Your task to perform on an android device: Is it going to rain today? Image 0: 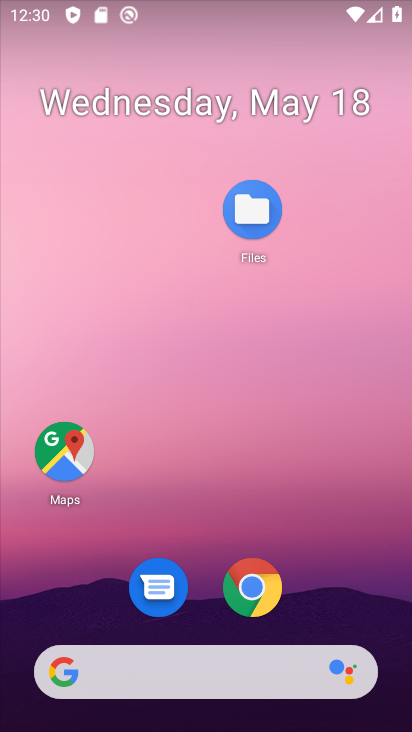
Step 0: drag from (373, 591) to (364, 82)
Your task to perform on an android device: Is it going to rain today? Image 1: 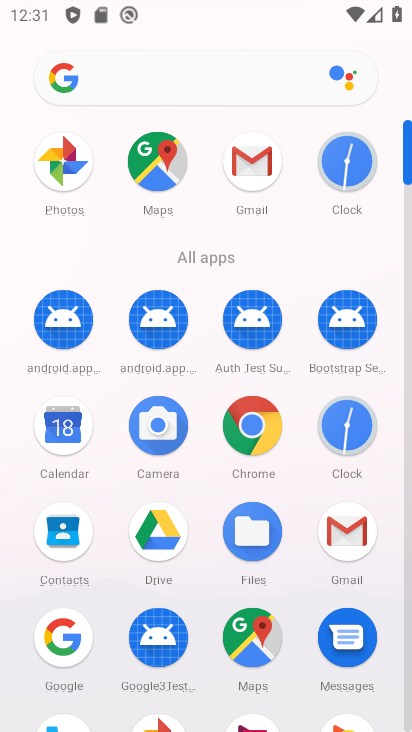
Step 1: click (64, 637)
Your task to perform on an android device: Is it going to rain today? Image 2: 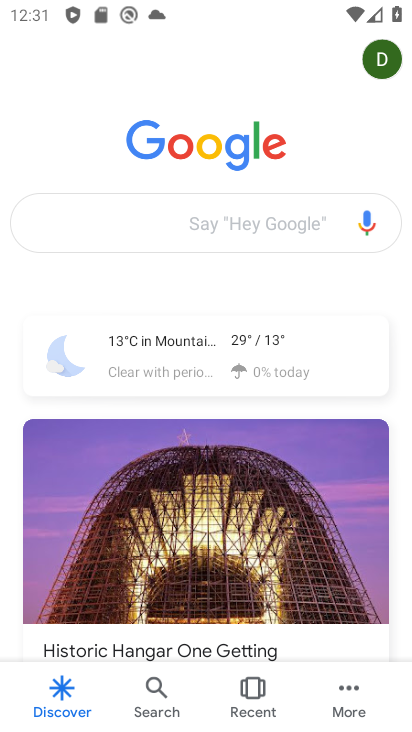
Step 2: click (201, 226)
Your task to perform on an android device: Is it going to rain today? Image 3: 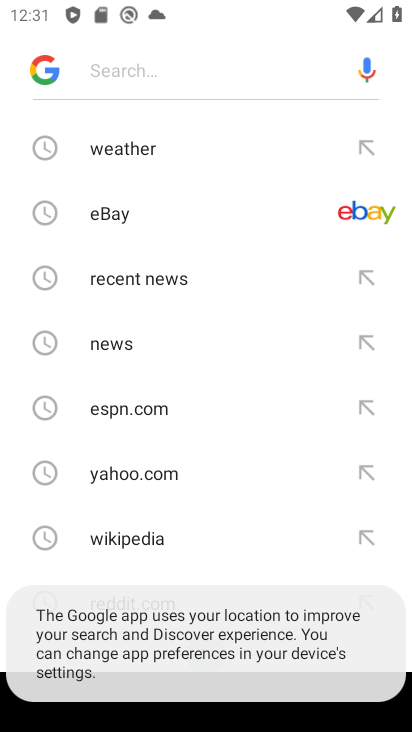
Step 3: click (126, 152)
Your task to perform on an android device: Is it going to rain today? Image 4: 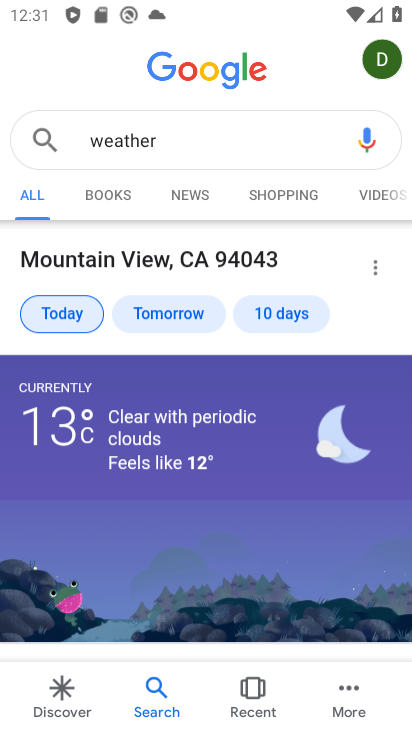
Step 4: task complete